Your task to perform on an android device: Go to privacy settings Image 0: 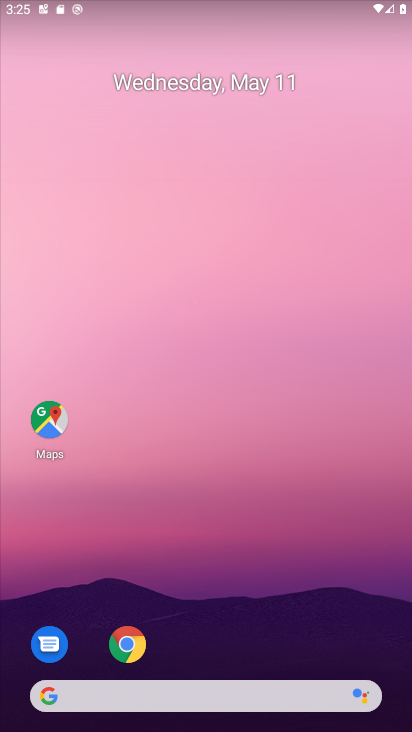
Step 0: drag from (179, 673) to (132, 4)
Your task to perform on an android device: Go to privacy settings Image 1: 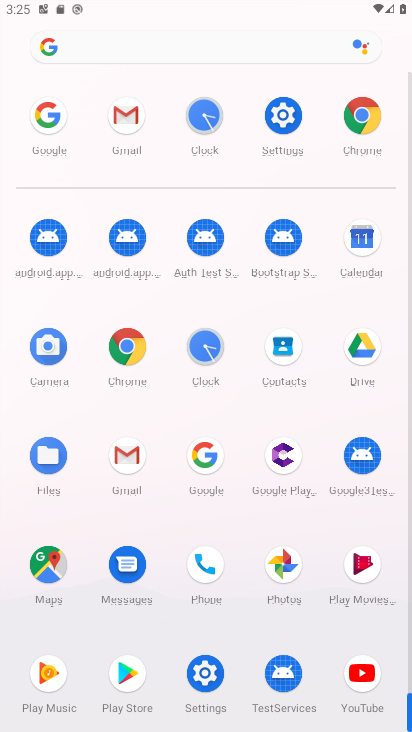
Step 1: click (208, 685)
Your task to perform on an android device: Go to privacy settings Image 2: 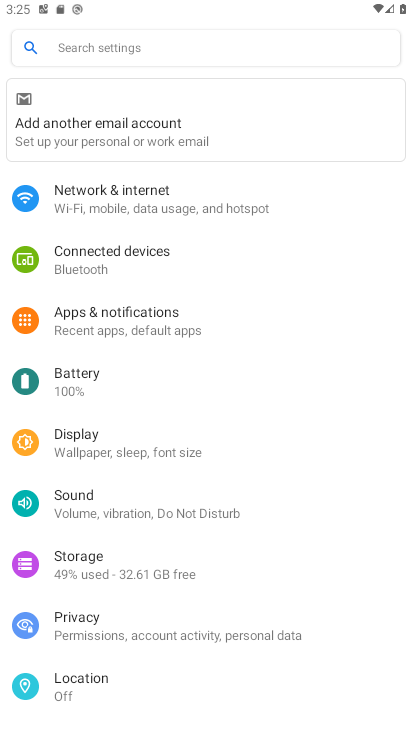
Step 2: click (100, 633)
Your task to perform on an android device: Go to privacy settings Image 3: 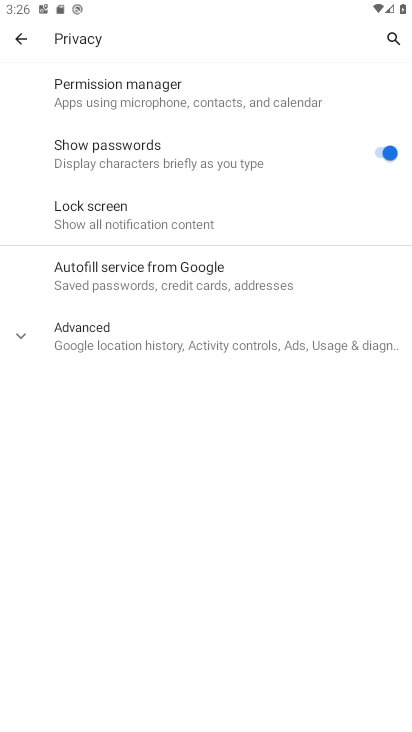
Step 3: task complete